Your task to perform on an android device: Open Chrome and go to settings Image 0: 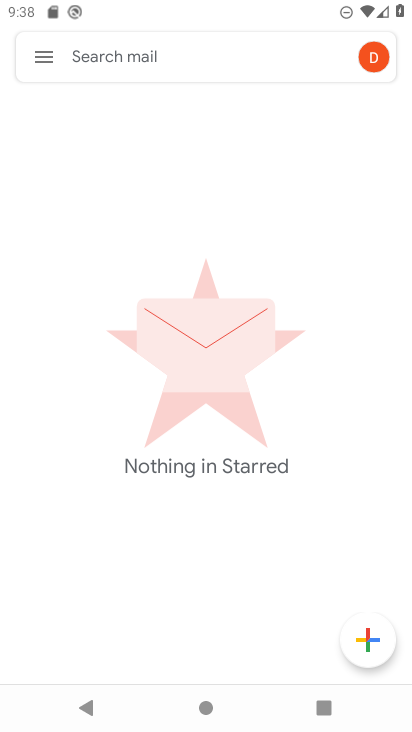
Step 0: press home button
Your task to perform on an android device: Open Chrome and go to settings Image 1: 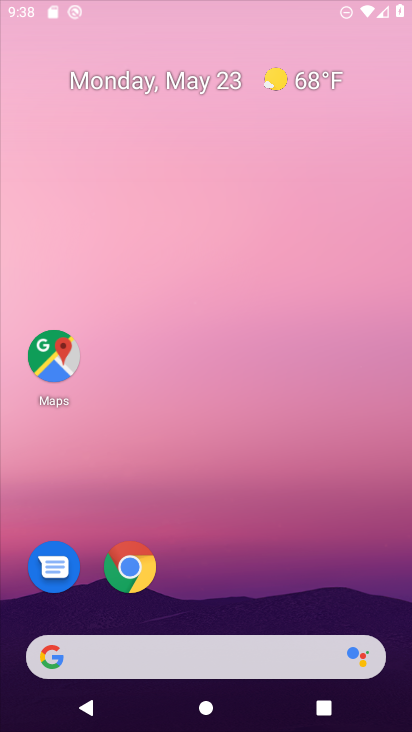
Step 1: drag from (178, 659) to (238, 130)
Your task to perform on an android device: Open Chrome and go to settings Image 2: 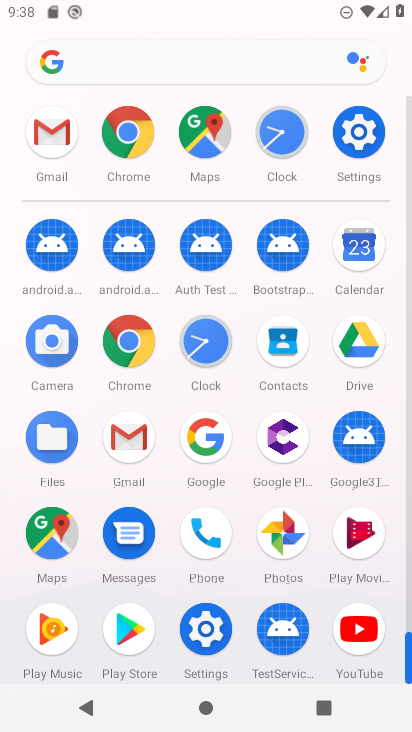
Step 2: click (129, 364)
Your task to perform on an android device: Open Chrome and go to settings Image 3: 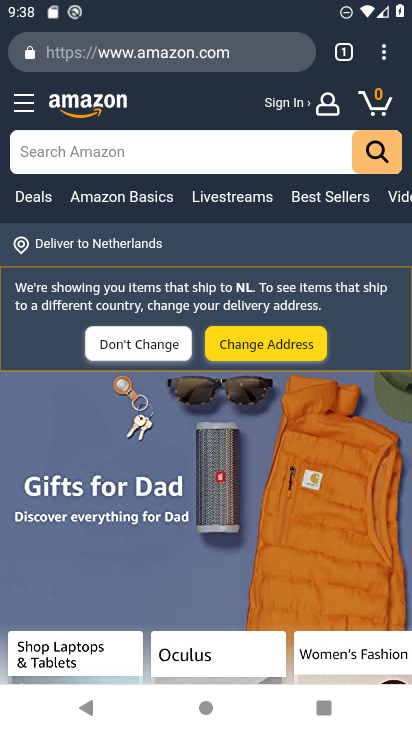
Step 3: click (386, 45)
Your task to perform on an android device: Open Chrome and go to settings Image 4: 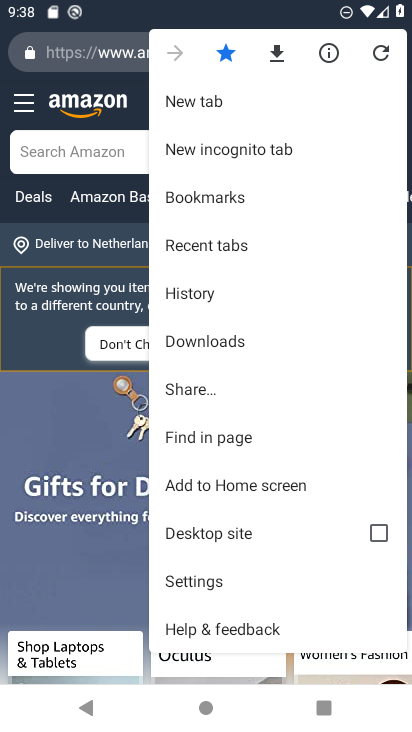
Step 4: click (228, 575)
Your task to perform on an android device: Open Chrome and go to settings Image 5: 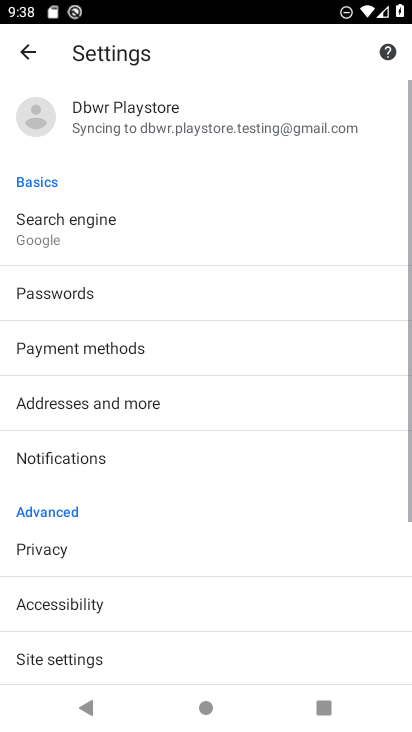
Step 5: task complete